Your task to perform on an android device: manage bookmarks in the chrome app Image 0: 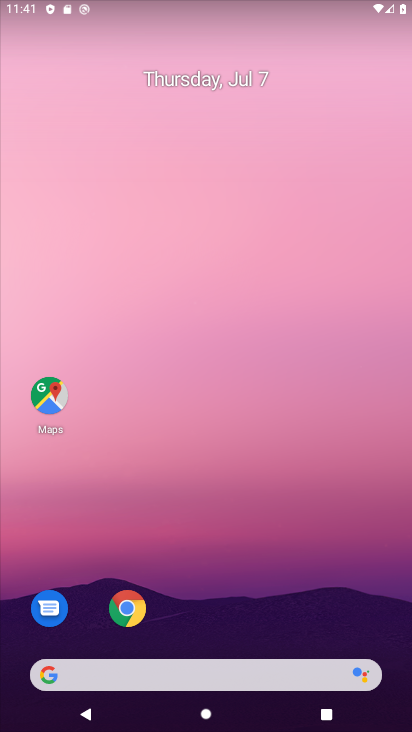
Step 0: drag from (237, 609) to (235, 7)
Your task to perform on an android device: manage bookmarks in the chrome app Image 1: 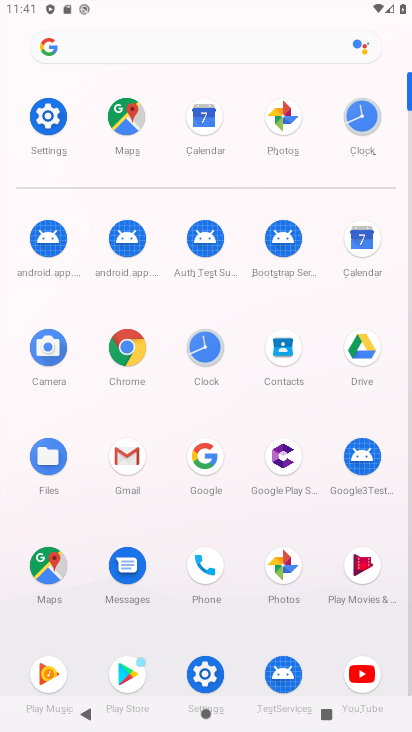
Step 1: click (131, 379)
Your task to perform on an android device: manage bookmarks in the chrome app Image 2: 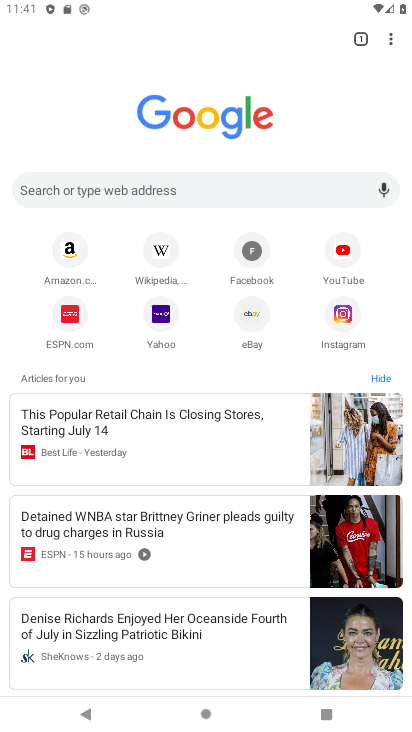
Step 2: click (389, 38)
Your task to perform on an android device: manage bookmarks in the chrome app Image 3: 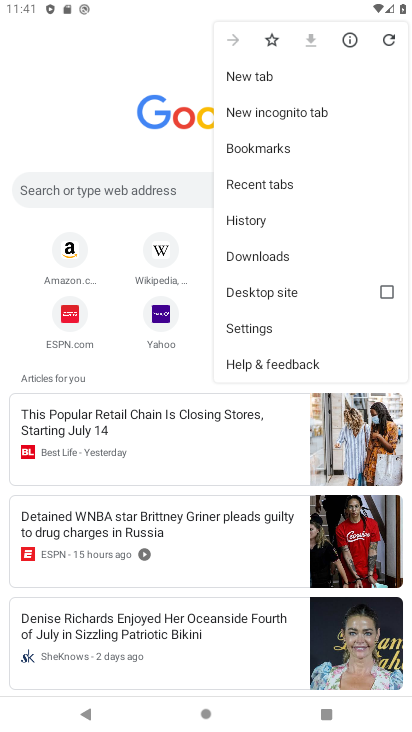
Step 3: click (286, 143)
Your task to perform on an android device: manage bookmarks in the chrome app Image 4: 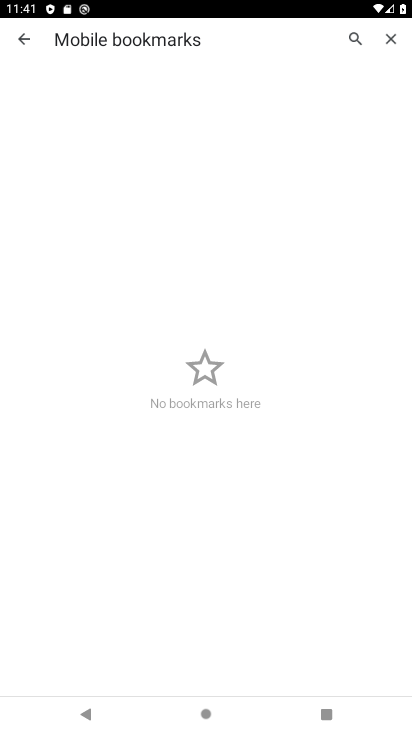
Step 4: task complete